Your task to perform on an android device: turn off location history Image 0: 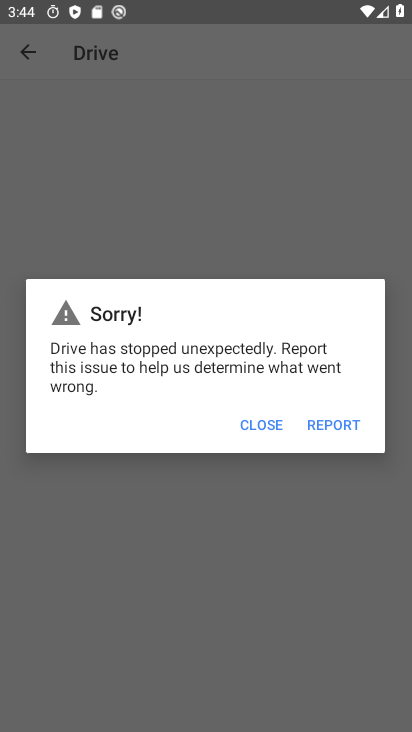
Step 0: drag from (238, 617) to (189, 239)
Your task to perform on an android device: turn off location history Image 1: 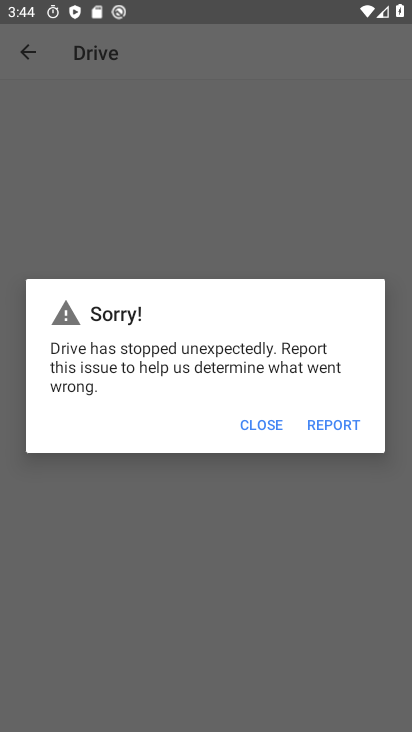
Step 1: press home button
Your task to perform on an android device: turn off location history Image 2: 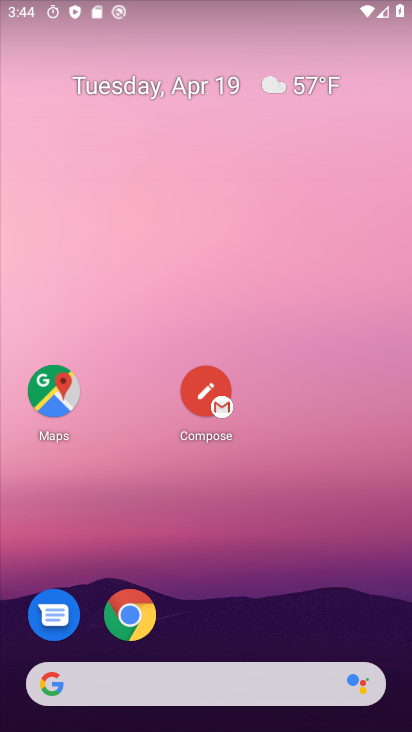
Step 2: drag from (274, 576) to (234, 83)
Your task to perform on an android device: turn off location history Image 3: 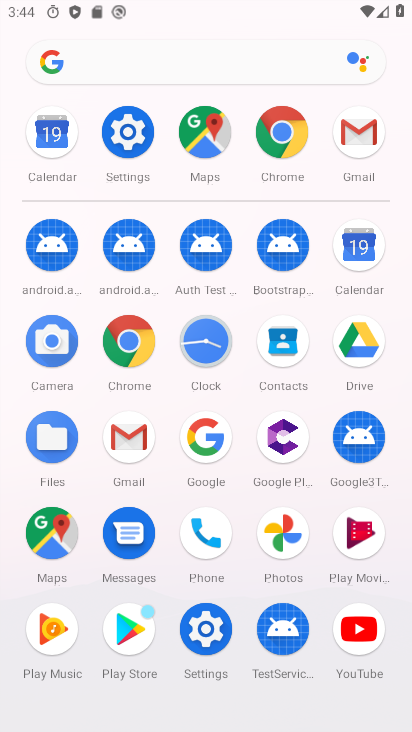
Step 3: click (202, 638)
Your task to perform on an android device: turn off location history Image 4: 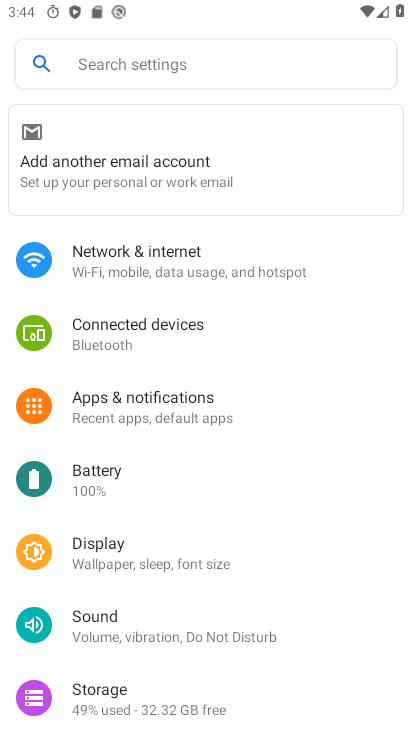
Step 4: drag from (206, 671) to (155, 284)
Your task to perform on an android device: turn off location history Image 5: 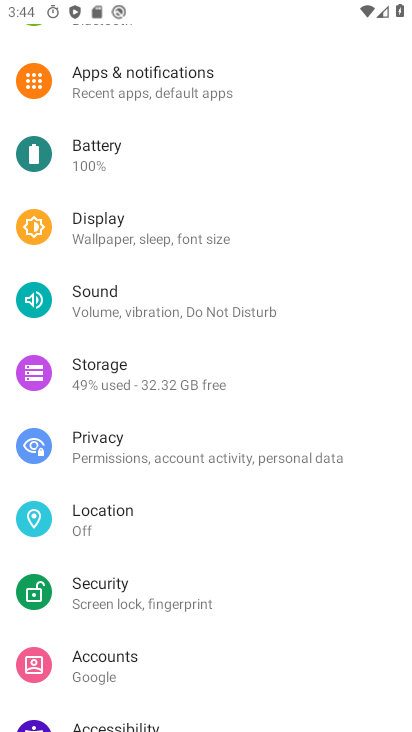
Step 5: click (125, 518)
Your task to perform on an android device: turn off location history Image 6: 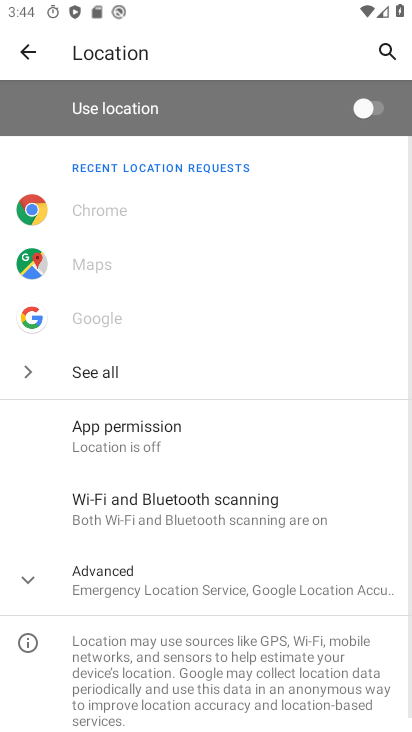
Step 6: drag from (226, 639) to (224, 195)
Your task to perform on an android device: turn off location history Image 7: 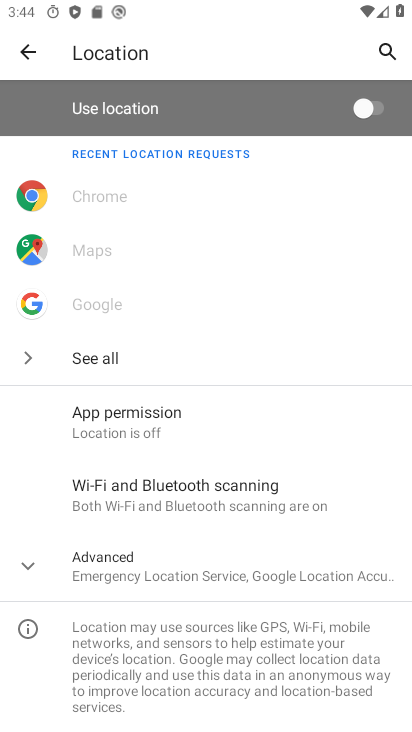
Step 7: click (132, 553)
Your task to perform on an android device: turn off location history Image 8: 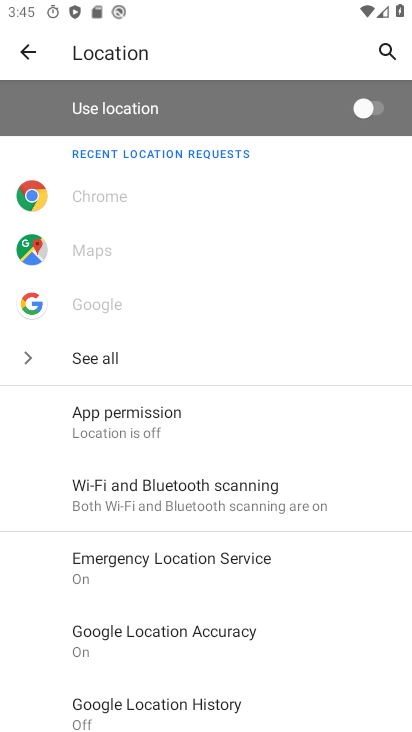
Step 8: drag from (187, 656) to (238, 340)
Your task to perform on an android device: turn off location history Image 9: 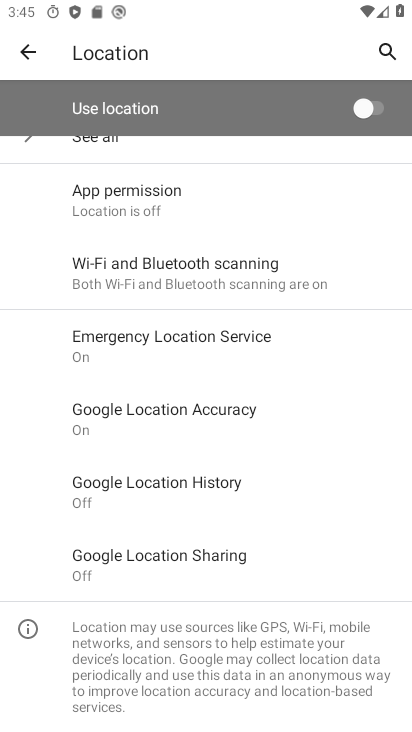
Step 9: click (189, 487)
Your task to perform on an android device: turn off location history Image 10: 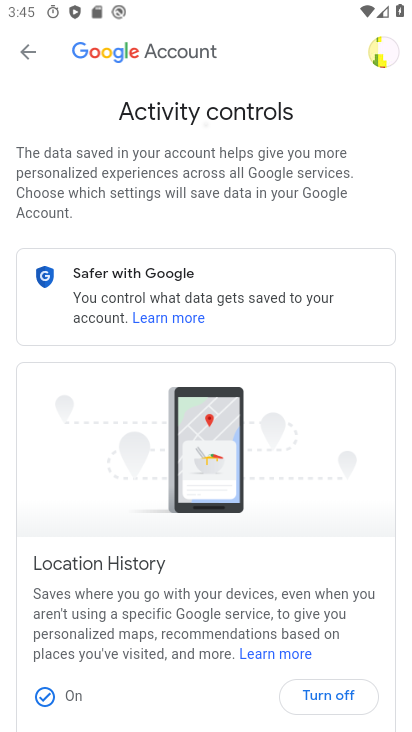
Step 10: drag from (230, 564) to (178, 144)
Your task to perform on an android device: turn off location history Image 11: 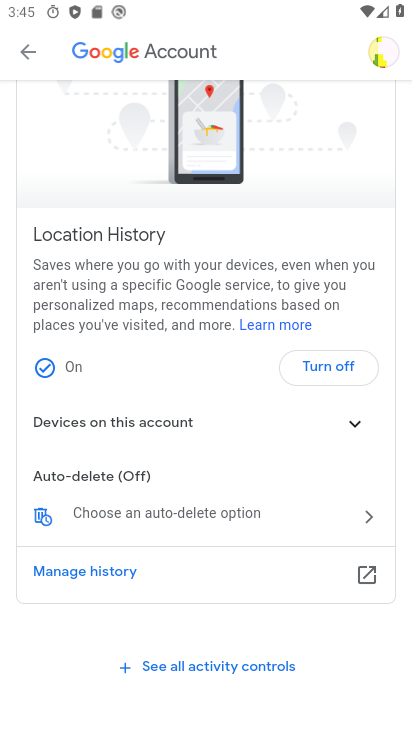
Step 11: click (333, 369)
Your task to perform on an android device: turn off location history Image 12: 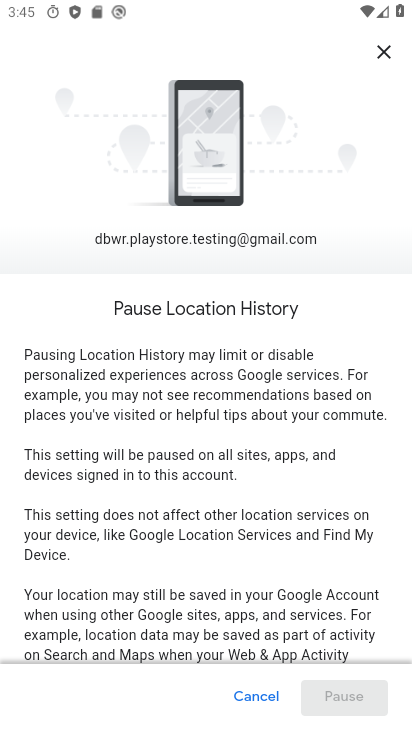
Step 12: drag from (302, 645) to (294, 62)
Your task to perform on an android device: turn off location history Image 13: 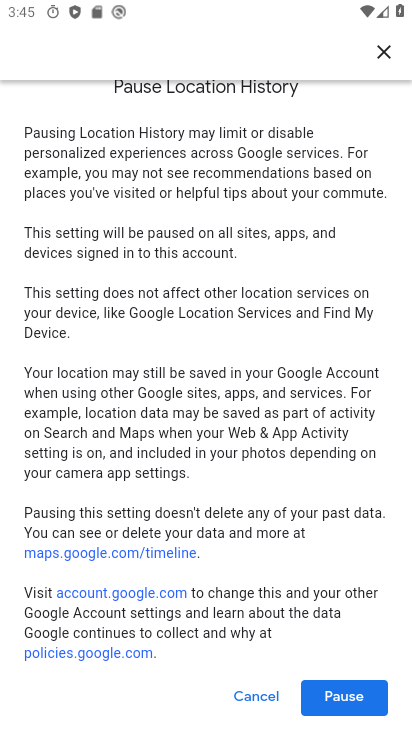
Step 13: click (365, 691)
Your task to perform on an android device: turn off location history Image 14: 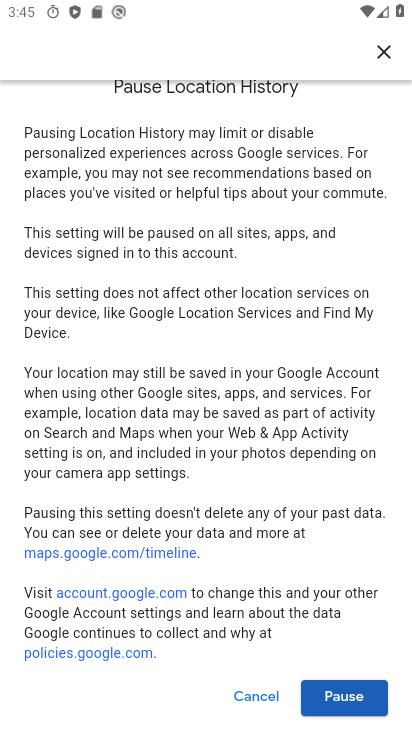
Step 14: click (341, 702)
Your task to perform on an android device: turn off location history Image 15: 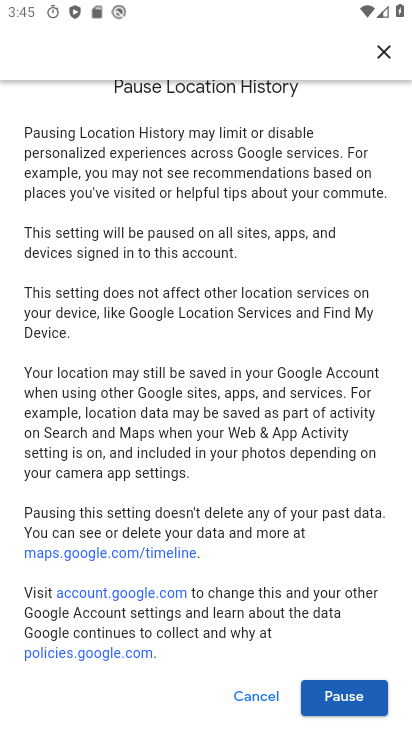
Step 15: click (341, 702)
Your task to perform on an android device: turn off location history Image 16: 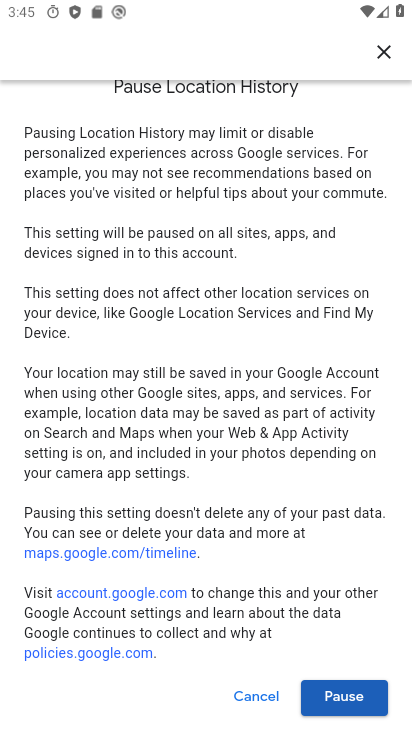
Step 16: click (349, 703)
Your task to perform on an android device: turn off location history Image 17: 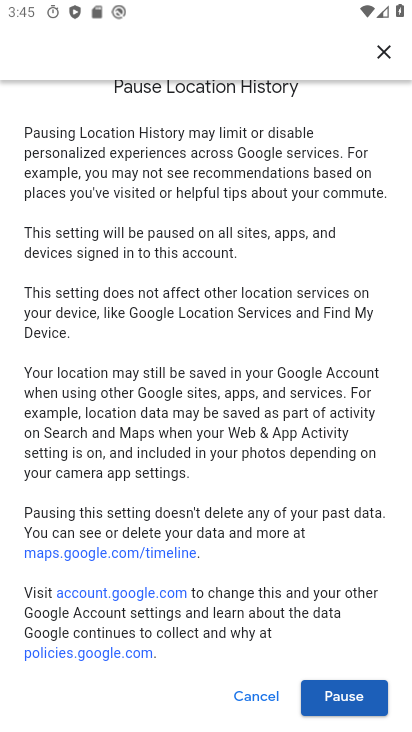
Step 17: click (367, 710)
Your task to perform on an android device: turn off location history Image 18: 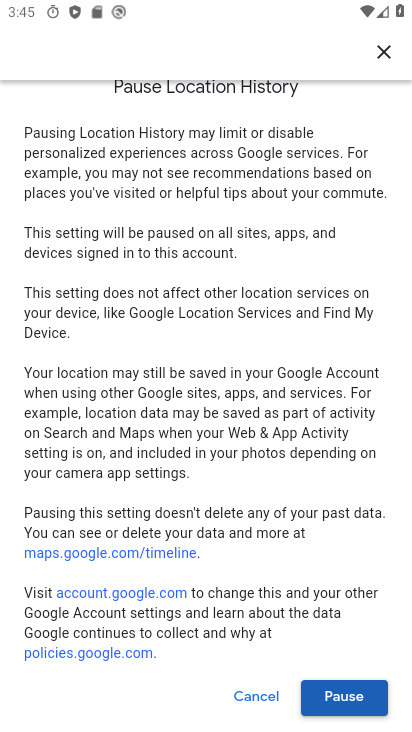
Step 18: click (365, 708)
Your task to perform on an android device: turn off location history Image 19: 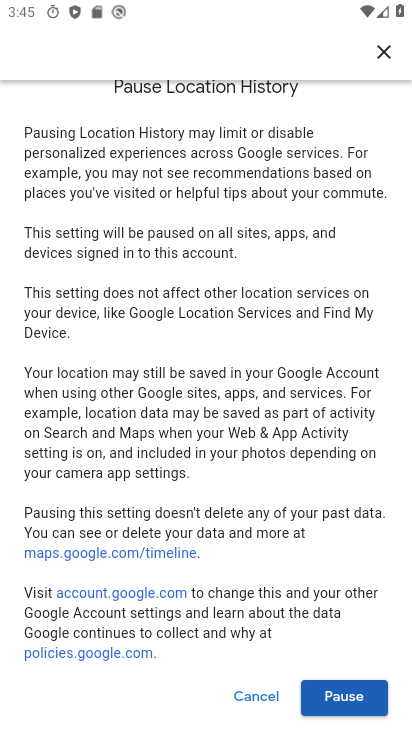
Step 19: click (375, 709)
Your task to perform on an android device: turn off location history Image 20: 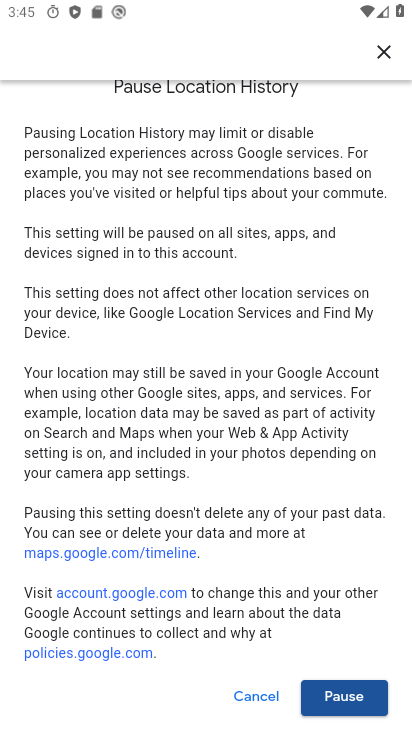
Step 20: click (372, 699)
Your task to perform on an android device: turn off location history Image 21: 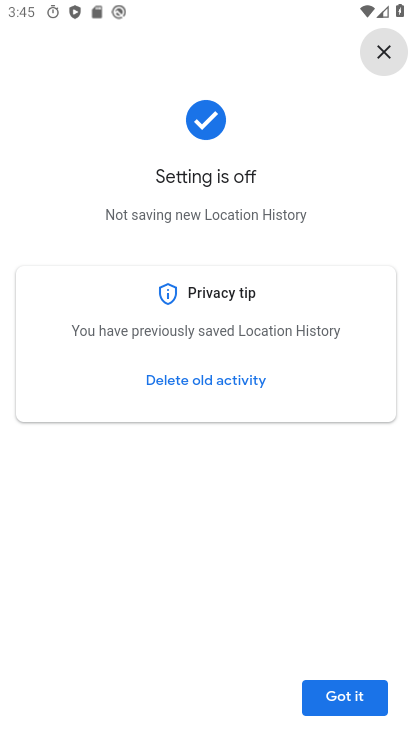
Step 21: task complete